Your task to perform on an android device: change the clock style Image 0: 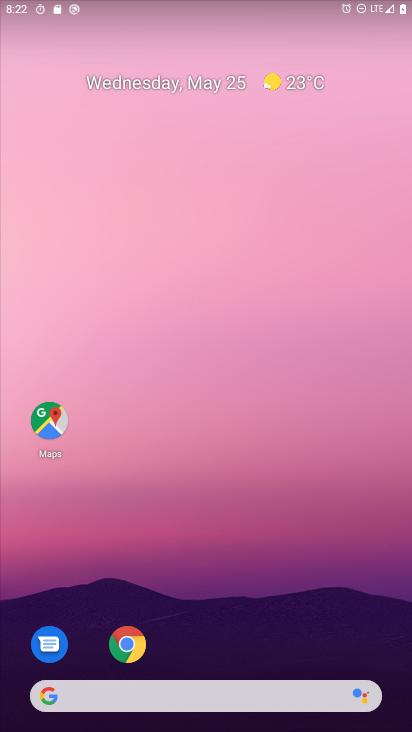
Step 0: drag from (328, 611) to (325, 44)
Your task to perform on an android device: change the clock style Image 1: 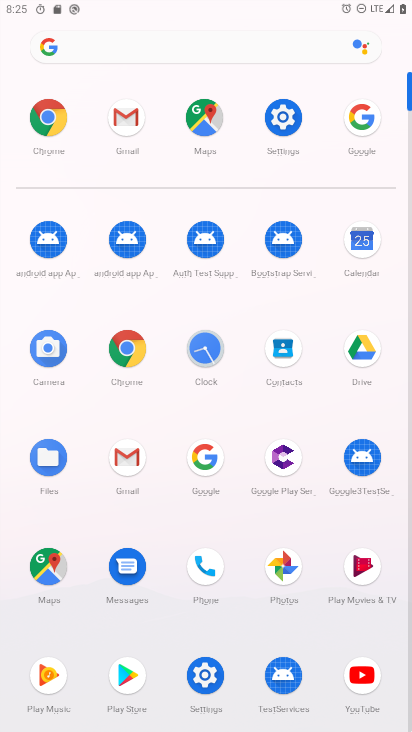
Step 1: click (192, 366)
Your task to perform on an android device: change the clock style Image 2: 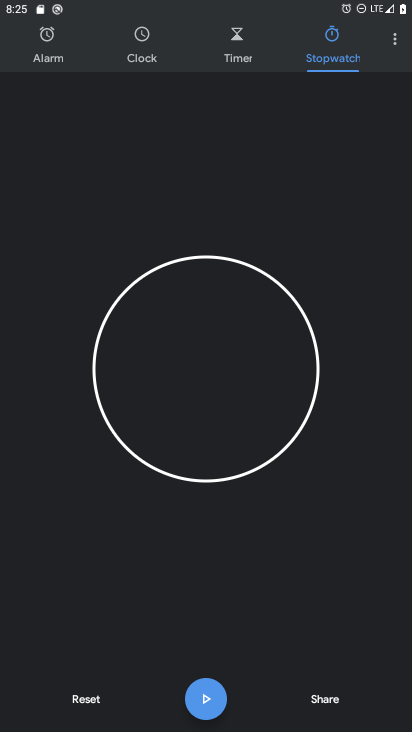
Step 2: click (404, 38)
Your task to perform on an android device: change the clock style Image 3: 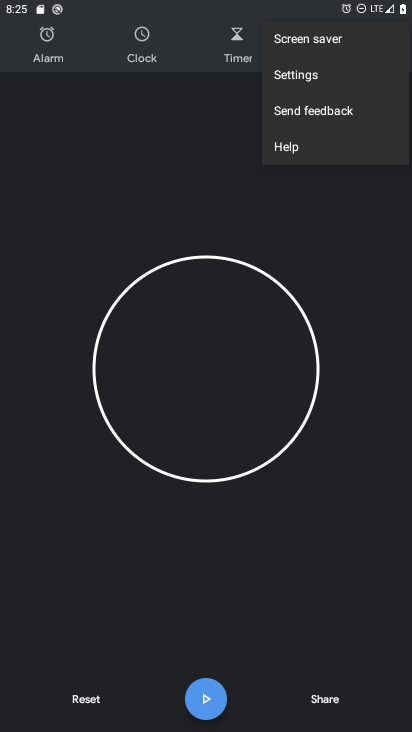
Step 3: click (305, 79)
Your task to perform on an android device: change the clock style Image 4: 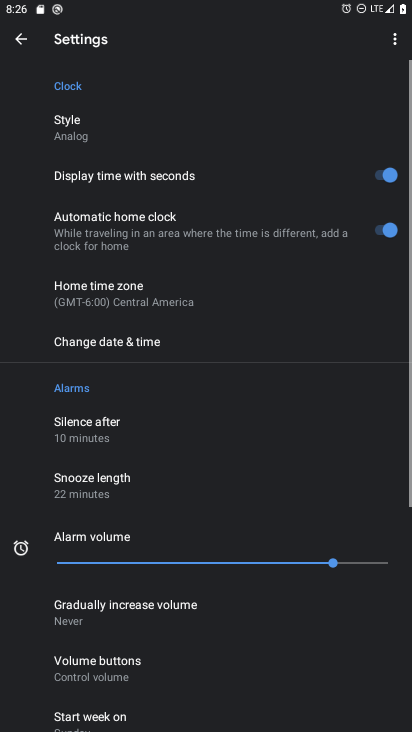
Step 4: click (75, 145)
Your task to perform on an android device: change the clock style Image 5: 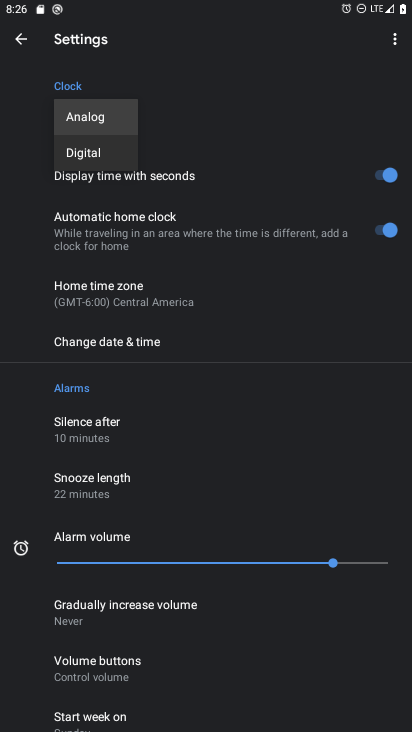
Step 5: click (102, 151)
Your task to perform on an android device: change the clock style Image 6: 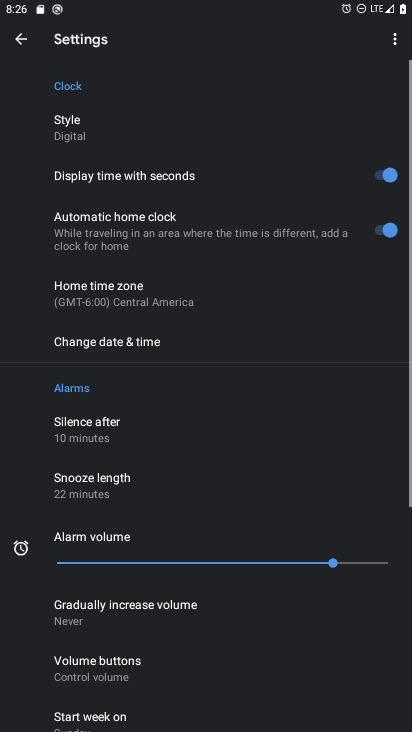
Step 6: task complete